Your task to perform on an android device: change the clock display to show seconds Image 0: 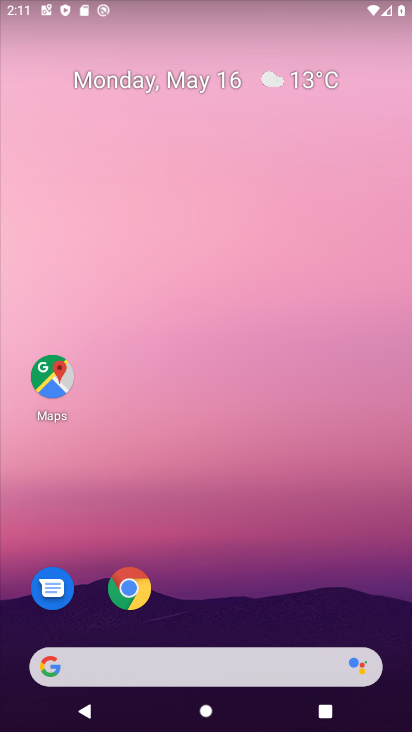
Step 0: drag from (210, 632) to (254, 85)
Your task to perform on an android device: change the clock display to show seconds Image 1: 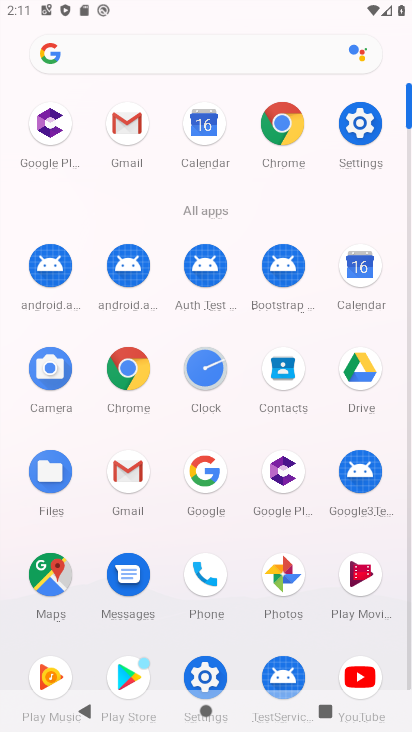
Step 1: click (191, 372)
Your task to perform on an android device: change the clock display to show seconds Image 2: 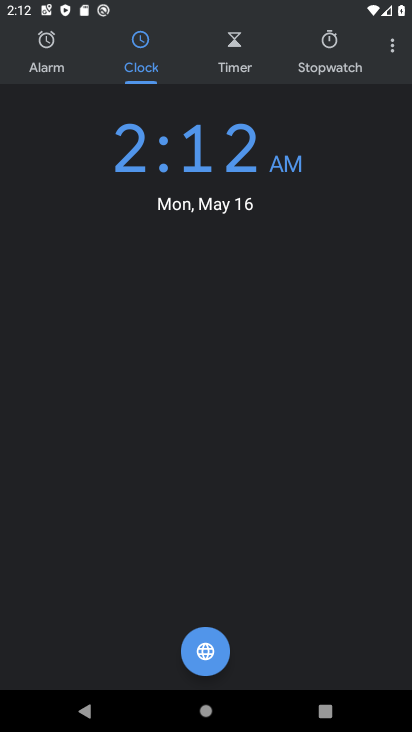
Step 2: click (399, 39)
Your task to perform on an android device: change the clock display to show seconds Image 3: 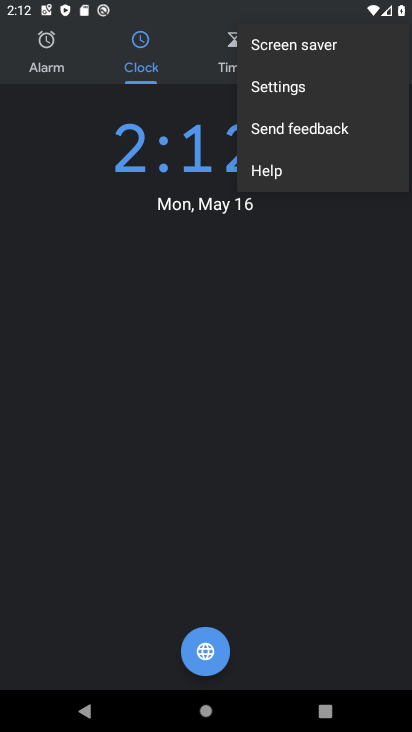
Step 3: click (297, 80)
Your task to perform on an android device: change the clock display to show seconds Image 4: 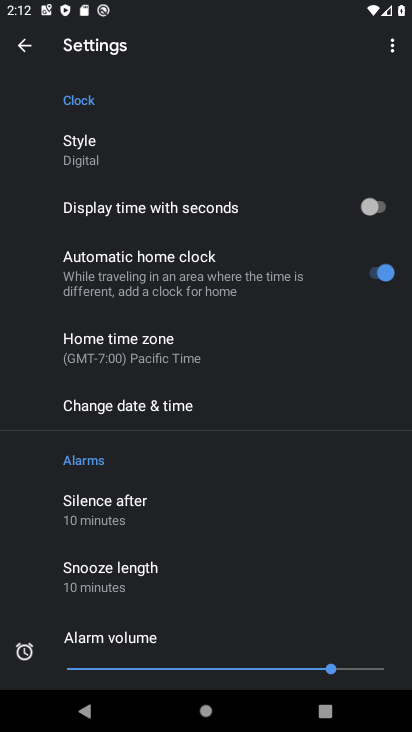
Step 4: click (374, 204)
Your task to perform on an android device: change the clock display to show seconds Image 5: 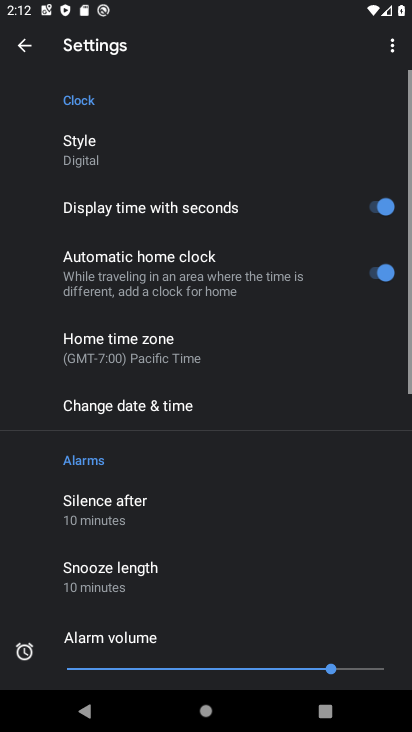
Step 5: task complete